Your task to perform on an android device: Show me the alarms in the clock app Image 0: 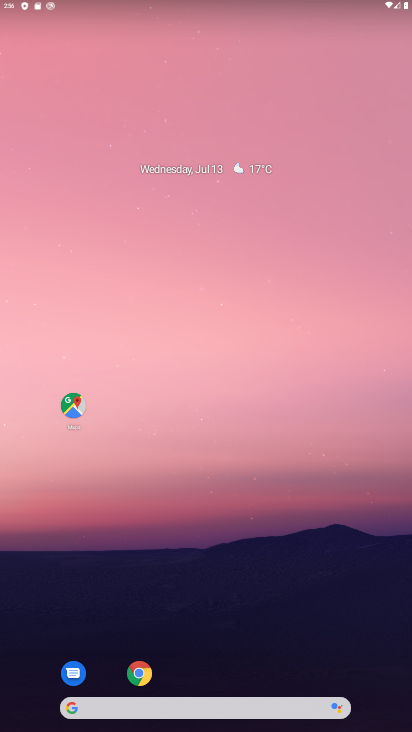
Step 0: drag from (271, 589) to (297, 41)
Your task to perform on an android device: Show me the alarms in the clock app Image 1: 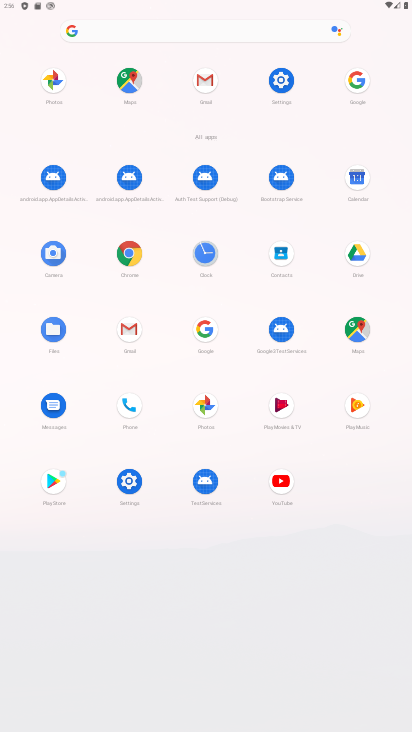
Step 1: click (199, 248)
Your task to perform on an android device: Show me the alarms in the clock app Image 2: 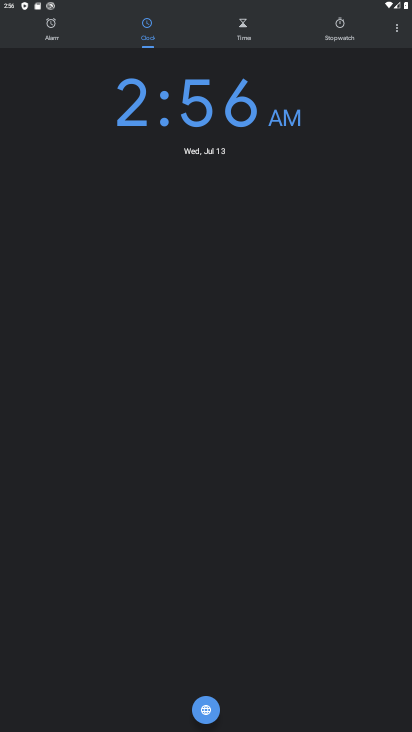
Step 2: click (54, 36)
Your task to perform on an android device: Show me the alarms in the clock app Image 3: 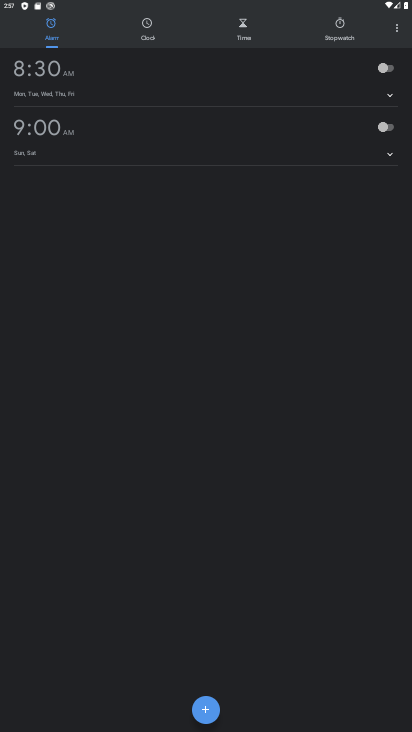
Step 3: task complete